Your task to perform on an android device: Open calendar and show me the second week of next month Image 0: 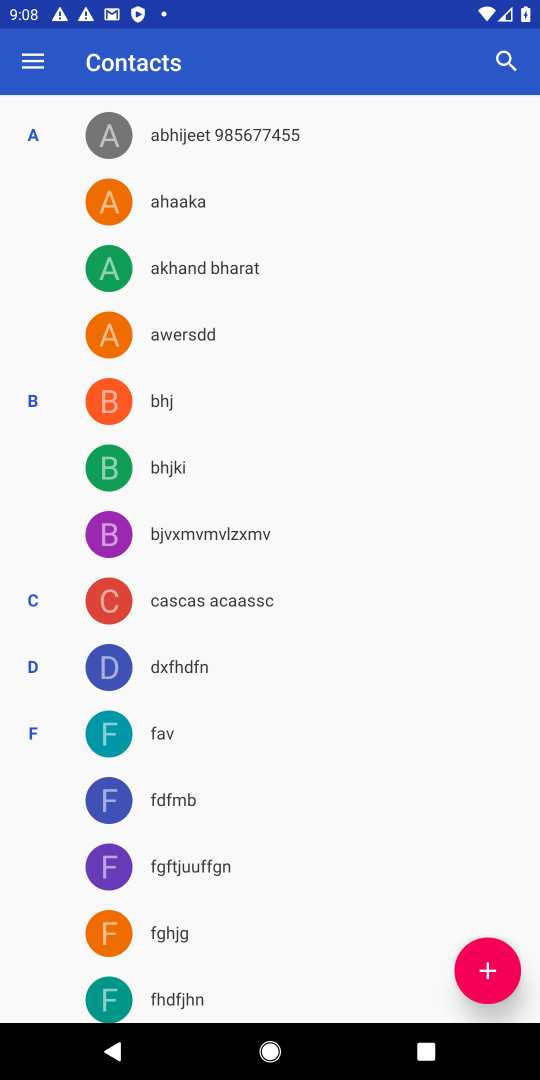
Step 0: press home button
Your task to perform on an android device: Open calendar and show me the second week of next month Image 1: 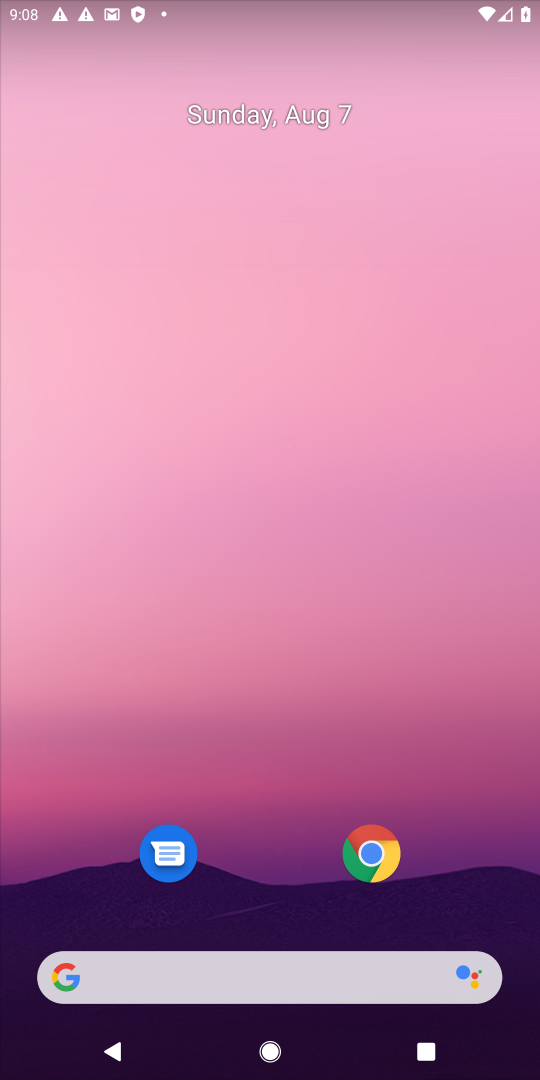
Step 1: drag from (450, 890) to (474, 249)
Your task to perform on an android device: Open calendar and show me the second week of next month Image 2: 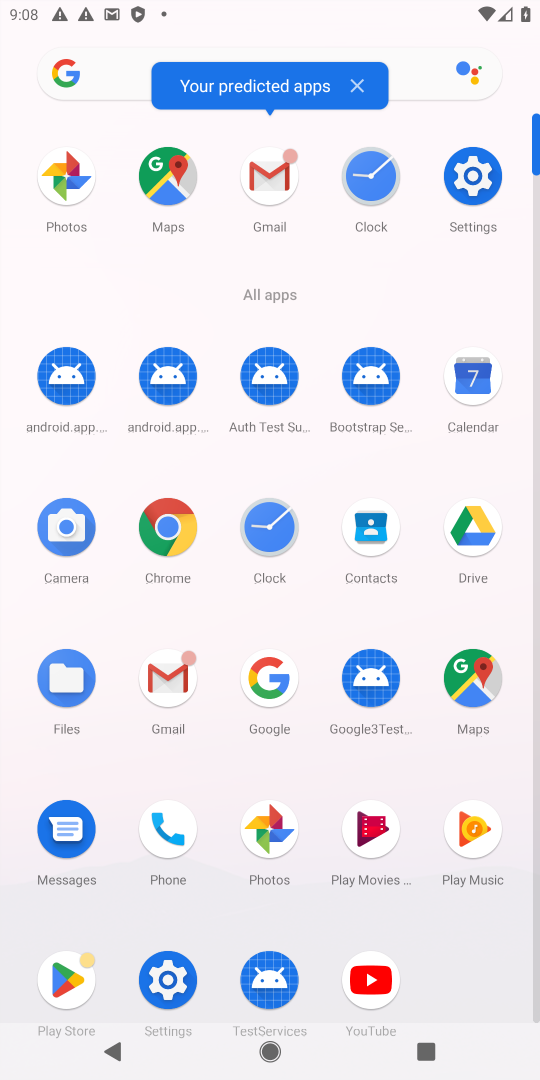
Step 2: click (472, 380)
Your task to perform on an android device: Open calendar and show me the second week of next month Image 3: 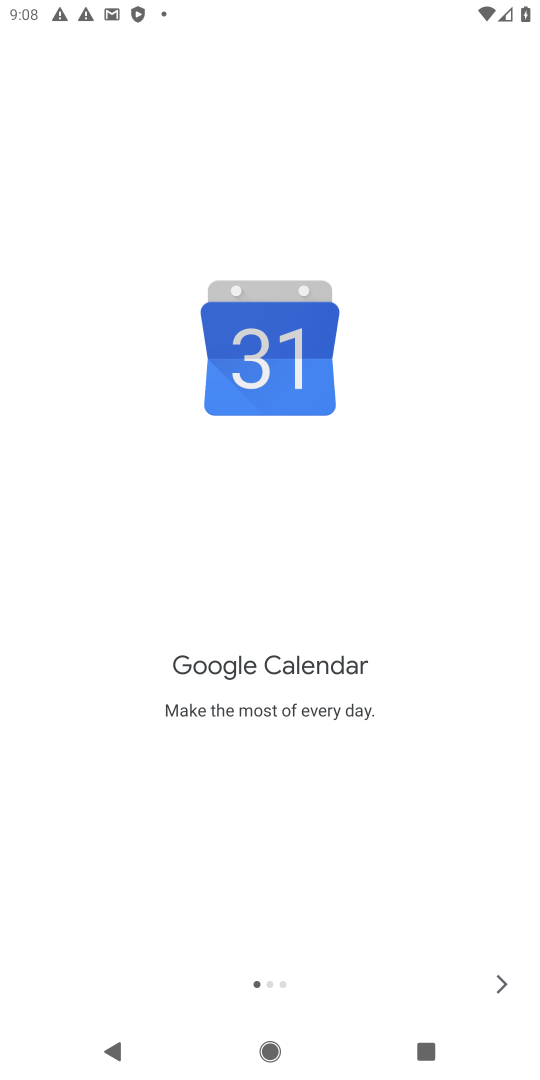
Step 3: click (506, 984)
Your task to perform on an android device: Open calendar and show me the second week of next month Image 4: 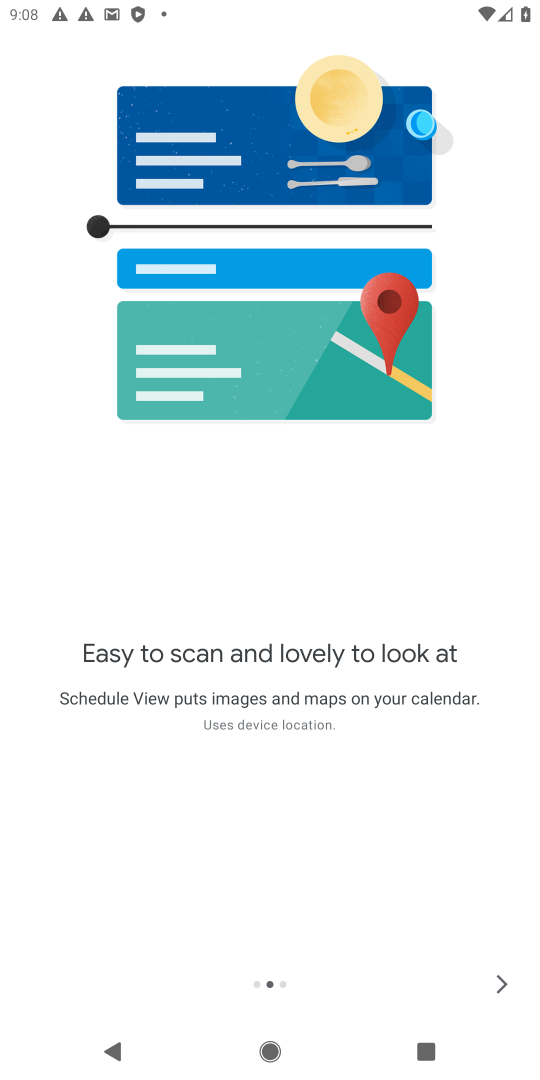
Step 4: click (506, 984)
Your task to perform on an android device: Open calendar and show me the second week of next month Image 5: 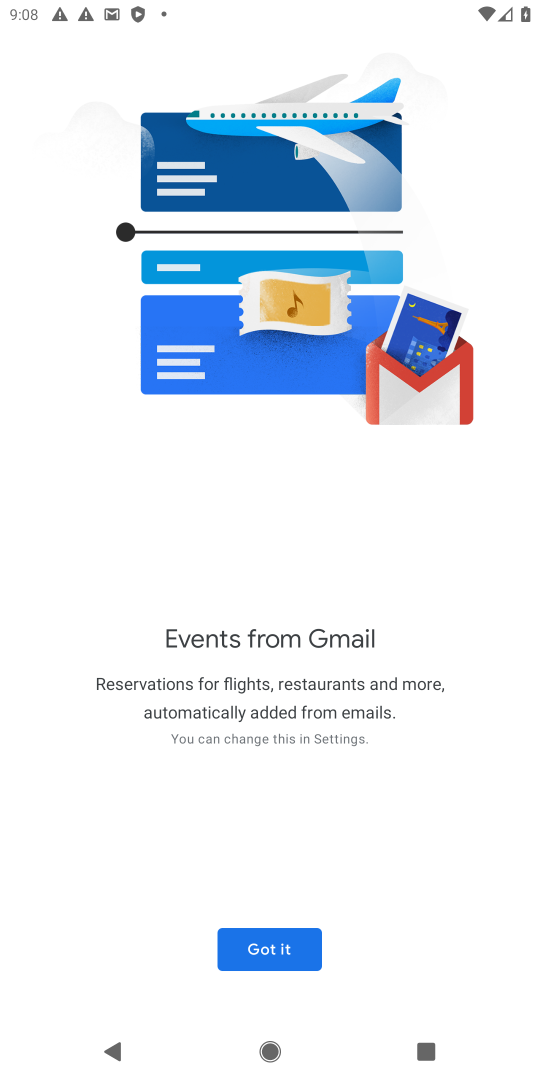
Step 5: click (252, 954)
Your task to perform on an android device: Open calendar and show me the second week of next month Image 6: 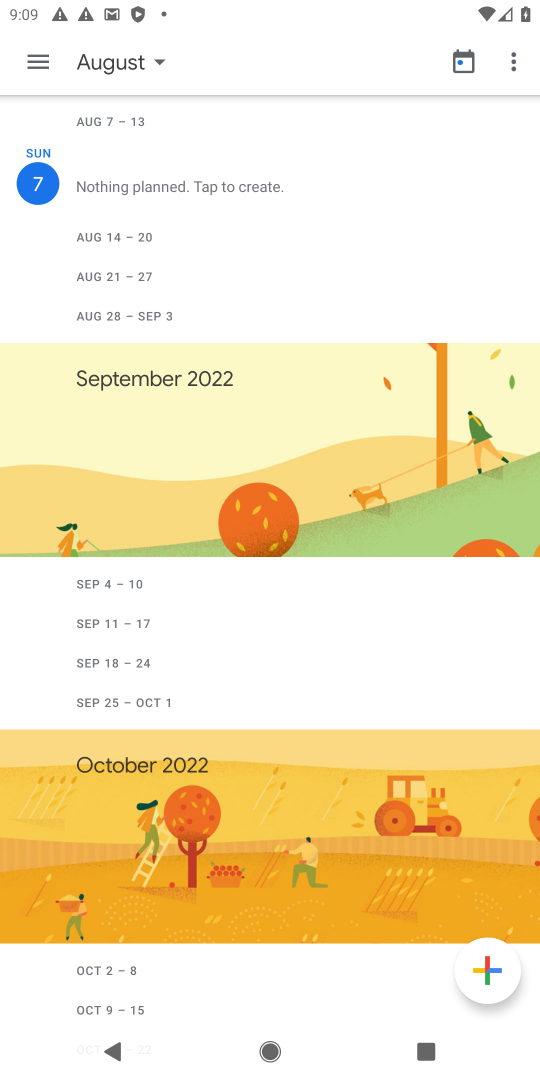
Step 6: click (155, 56)
Your task to perform on an android device: Open calendar and show me the second week of next month Image 7: 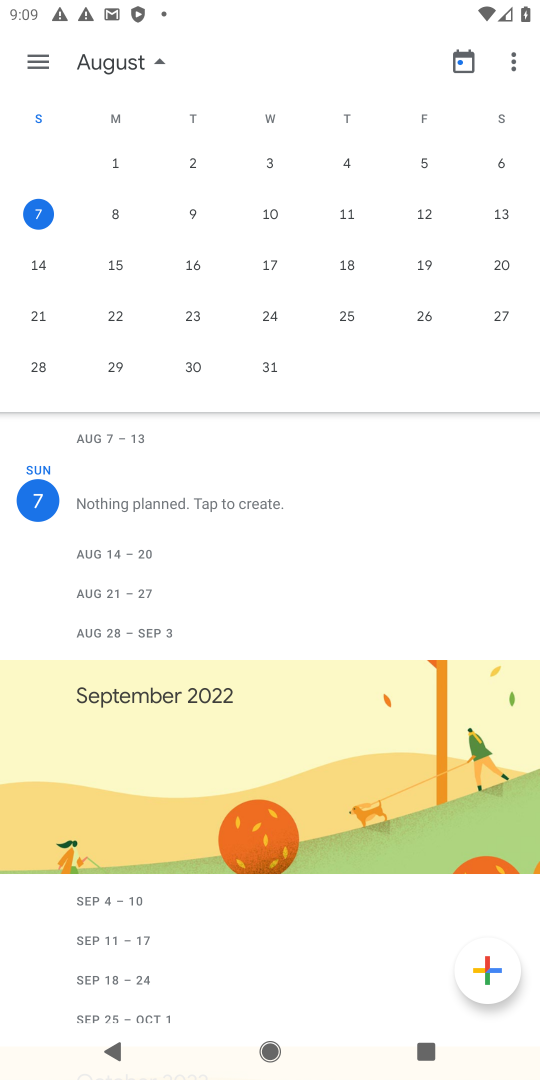
Step 7: drag from (481, 184) to (67, 177)
Your task to perform on an android device: Open calendar and show me the second week of next month Image 8: 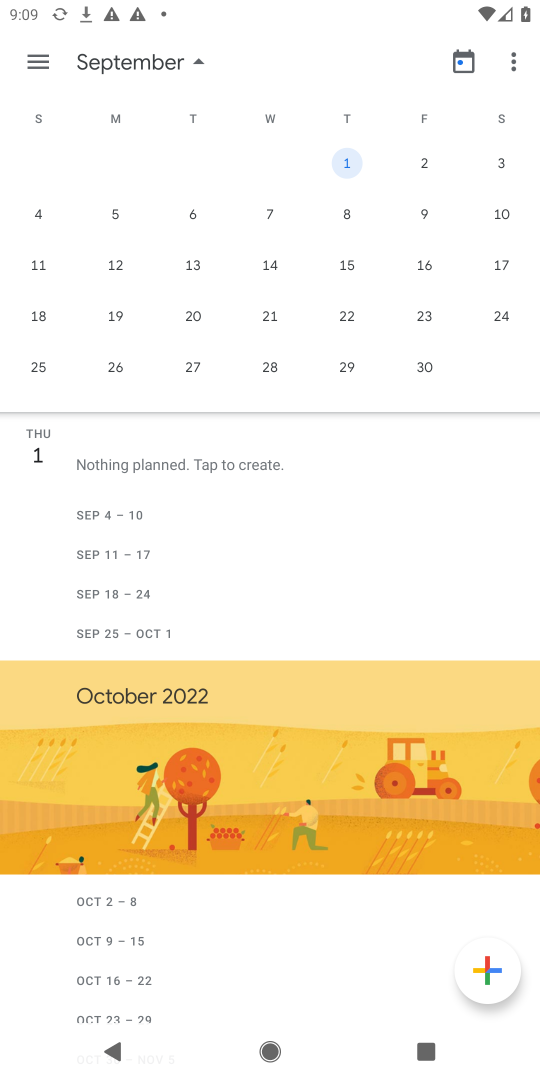
Step 8: click (119, 222)
Your task to perform on an android device: Open calendar and show me the second week of next month Image 9: 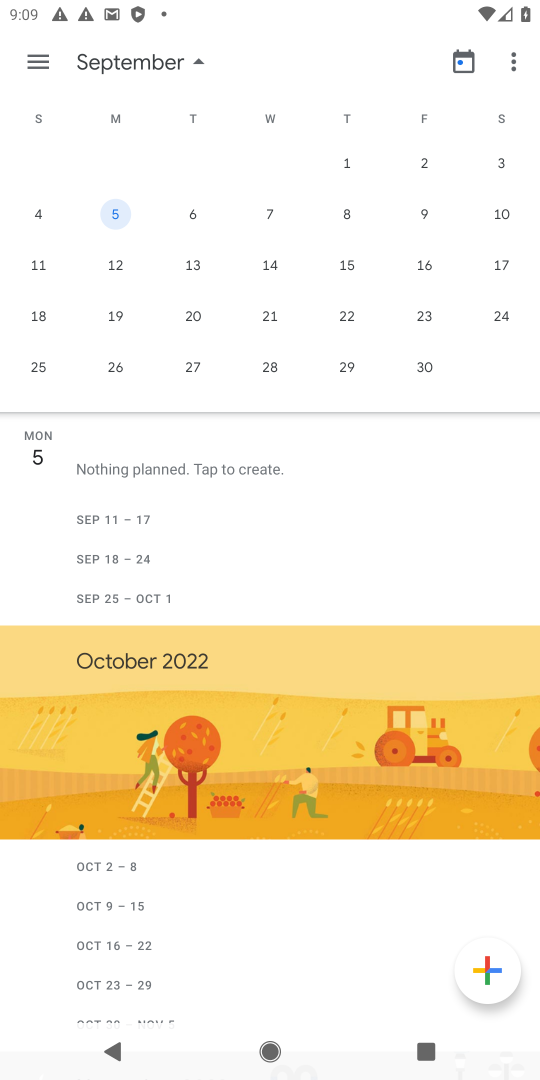
Step 9: task complete